Your task to perform on an android device: change notifications settings Image 0: 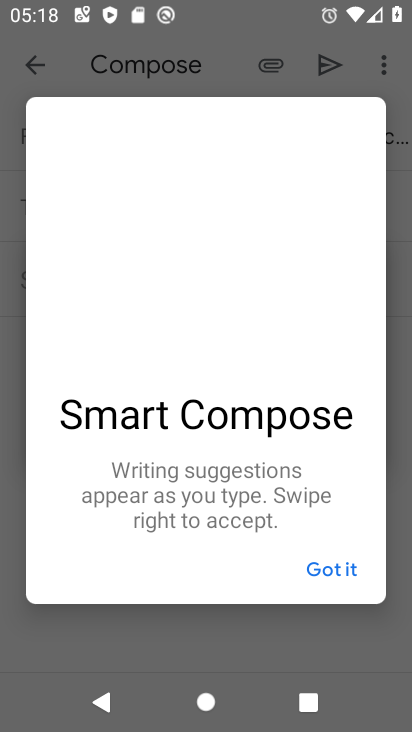
Step 0: drag from (384, 680) to (356, 224)
Your task to perform on an android device: change notifications settings Image 1: 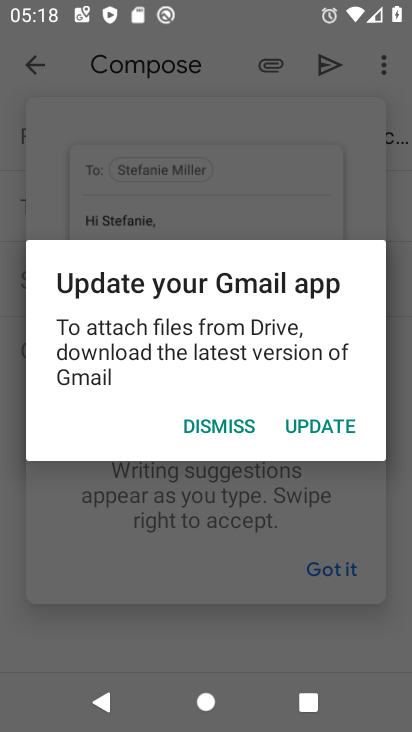
Step 1: press home button
Your task to perform on an android device: change notifications settings Image 2: 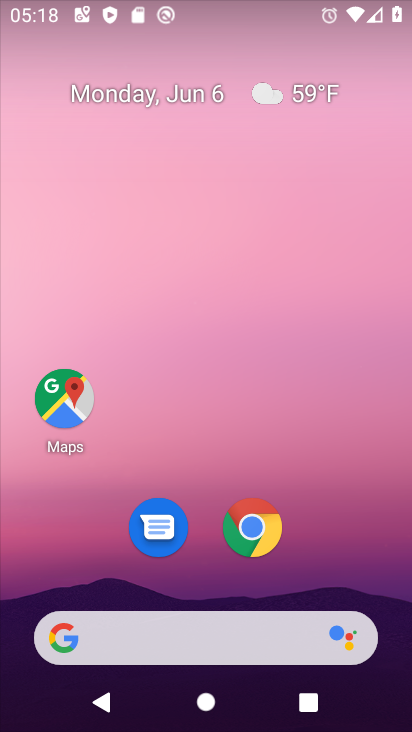
Step 2: drag from (384, 682) to (363, 49)
Your task to perform on an android device: change notifications settings Image 3: 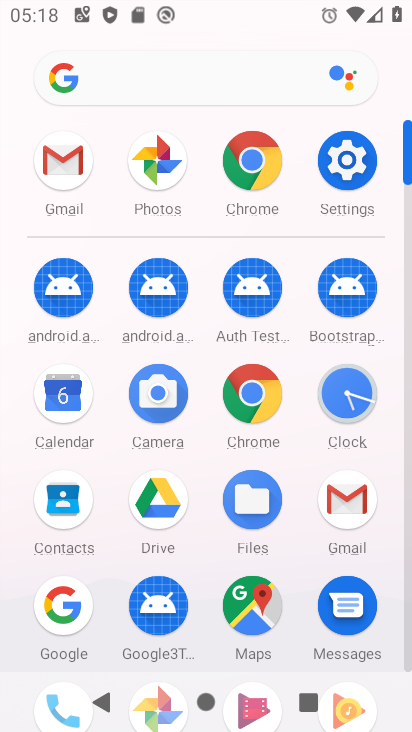
Step 3: click (362, 163)
Your task to perform on an android device: change notifications settings Image 4: 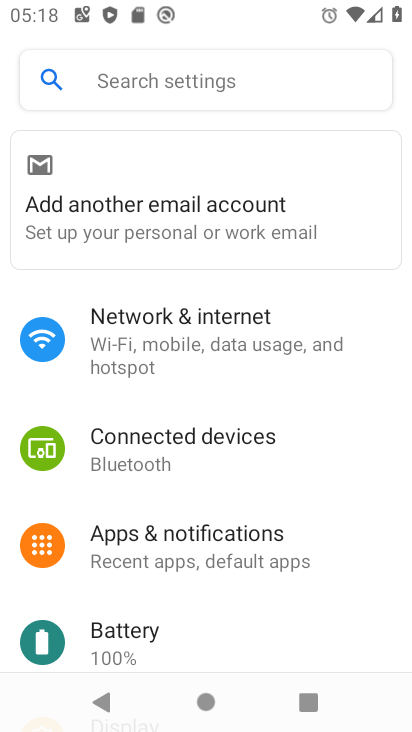
Step 4: click (162, 537)
Your task to perform on an android device: change notifications settings Image 5: 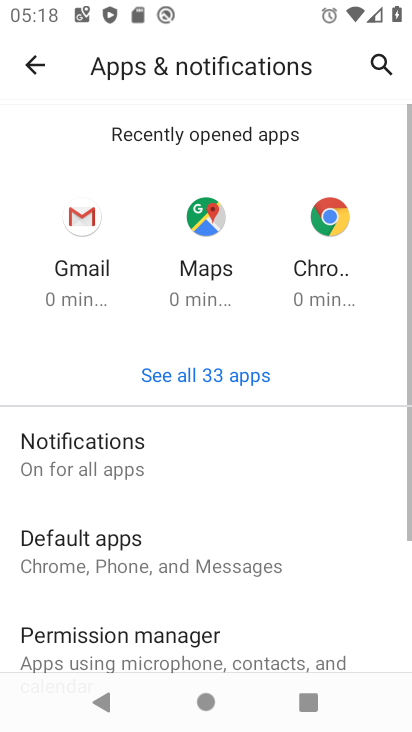
Step 5: click (81, 445)
Your task to perform on an android device: change notifications settings Image 6: 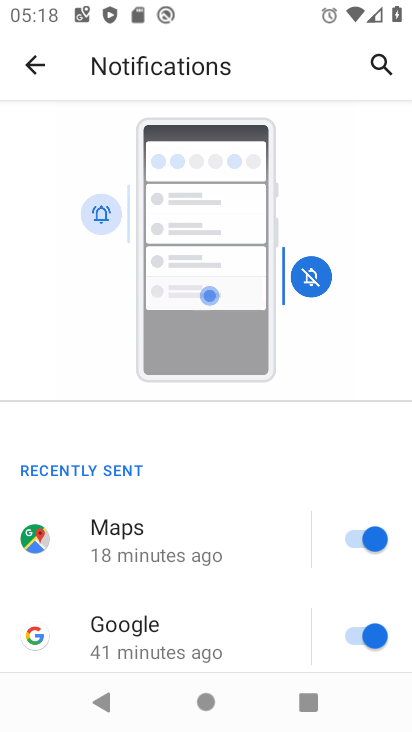
Step 6: drag from (279, 613) to (253, 113)
Your task to perform on an android device: change notifications settings Image 7: 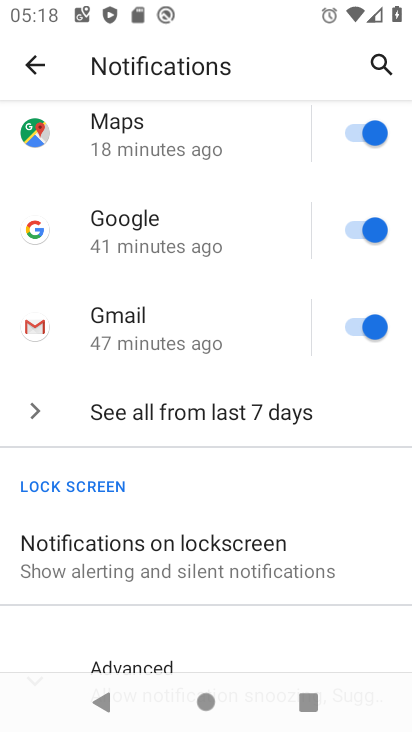
Step 7: click (145, 653)
Your task to perform on an android device: change notifications settings Image 8: 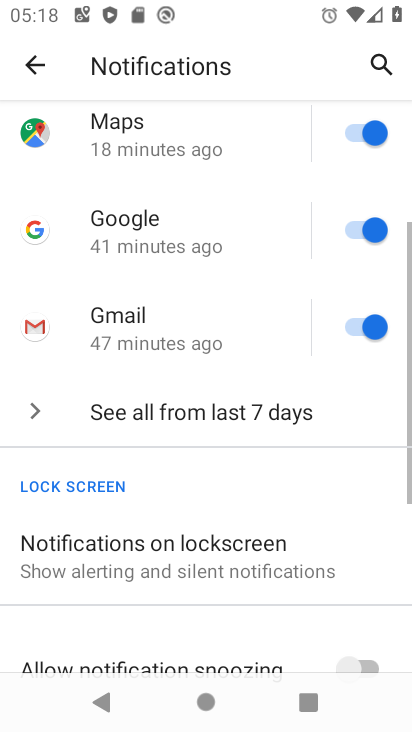
Step 8: task complete